Your task to perform on an android device: Go to network settings Image 0: 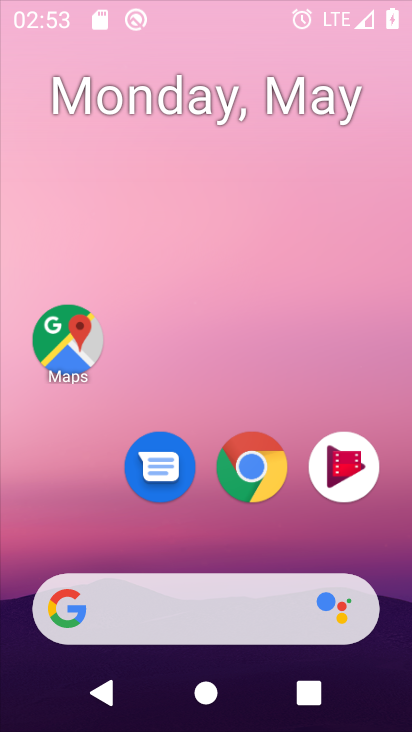
Step 0: click (282, 175)
Your task to perform on an android device: Go to network settings Image 1: 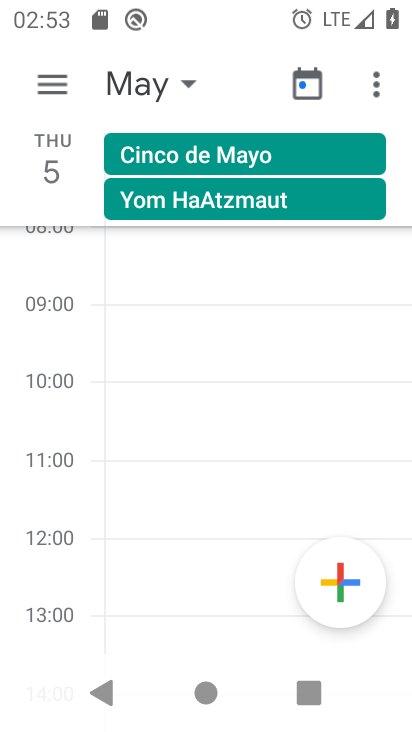
Step 1: press home button
Your task to perform on an android device: Go to network settings Image 2: 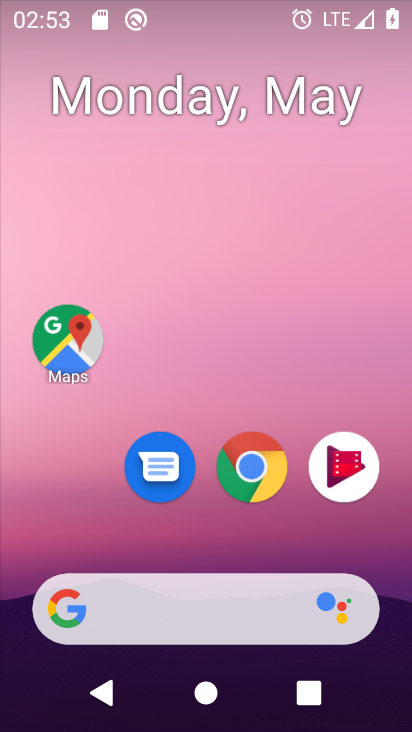
Step 2: drag from (177, 375) to (195, 197)
Your task to perform on an android device: Go to network settings Image 3: 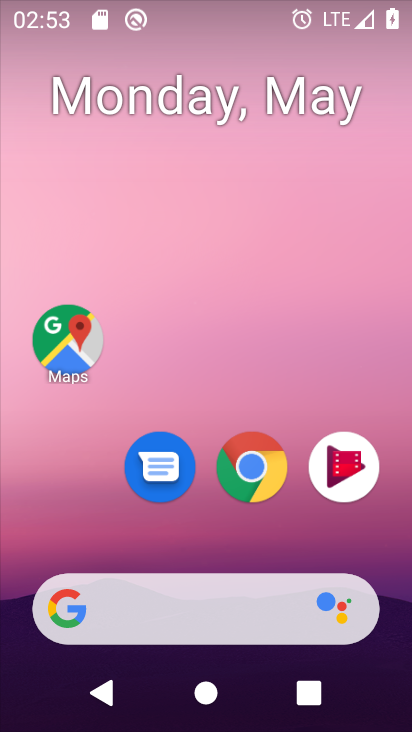
Step 3: drag from (178, 575) to (220, 172)
Your task to perform on an android device: Go to network settings Image 4: 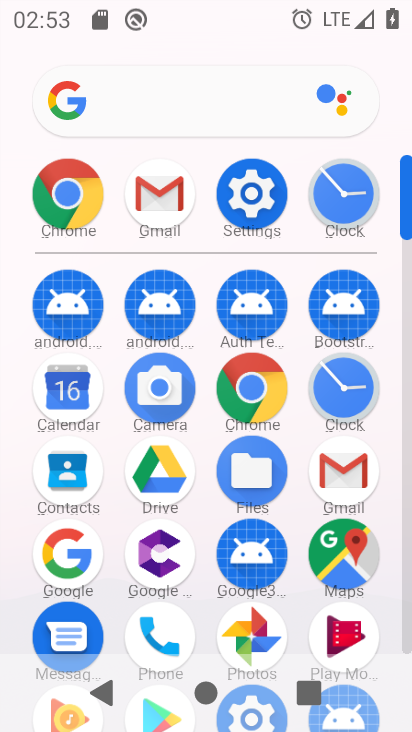
Step 4: click (74, 187)
Your task to perform on an android device: Go to network settings Image 5: 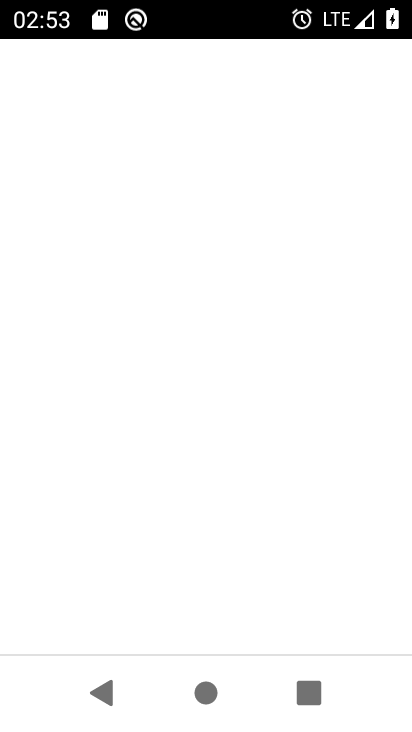
Step 5: press back button
Your task to perform on an android device: Go to network settings Image 6: 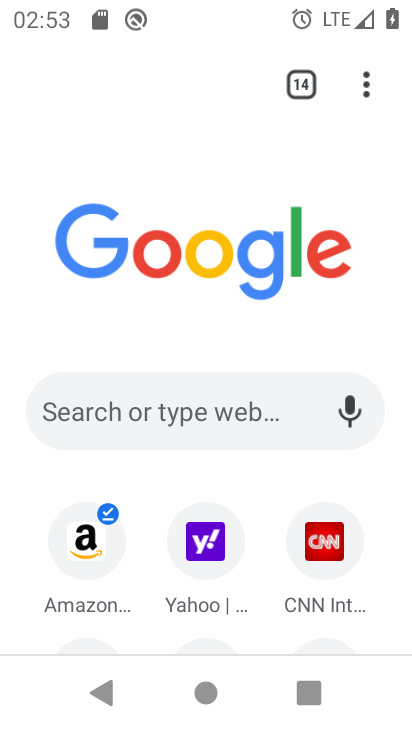
Step 6: press home button
Your task to perform on an android device: Go to network settings Image 7: 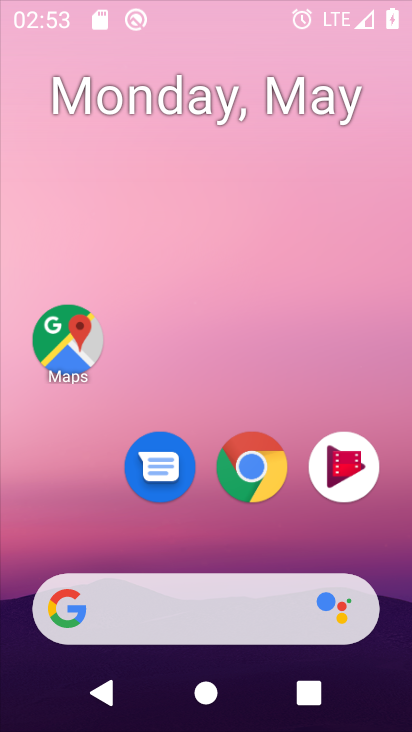
Step 7: drag from (167, 592) to (214, 237)
Your task to perform on an android device: Go to network settings Image 8: 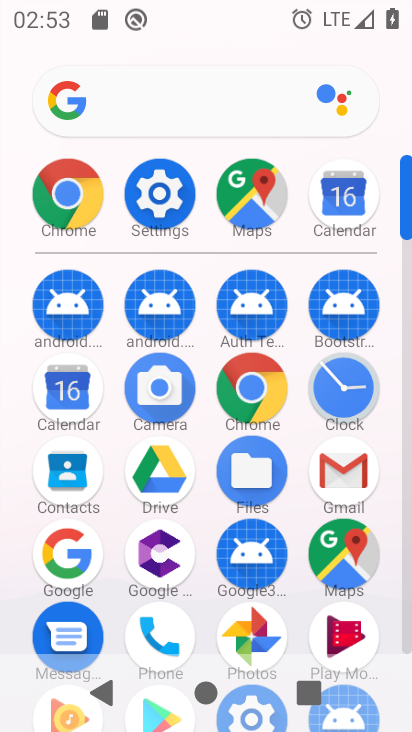
Step 8: click (162, 183)
Your task to perform on an android device: Go to network settings Image 9: 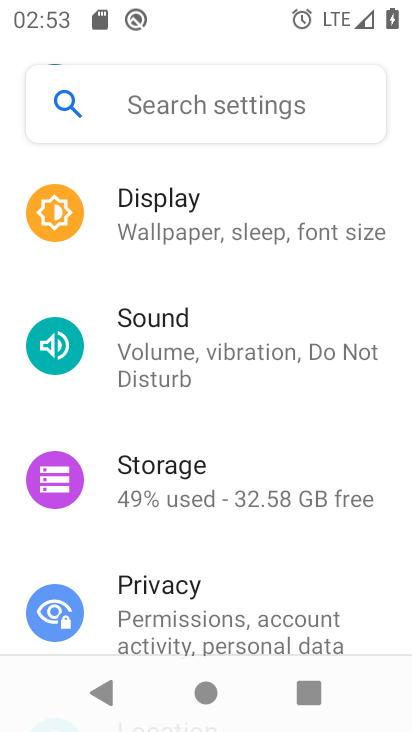
Step 9: drag from (214, 209) to (190, 593)
Your task to perform on an android device: Go to network settings Image 10: 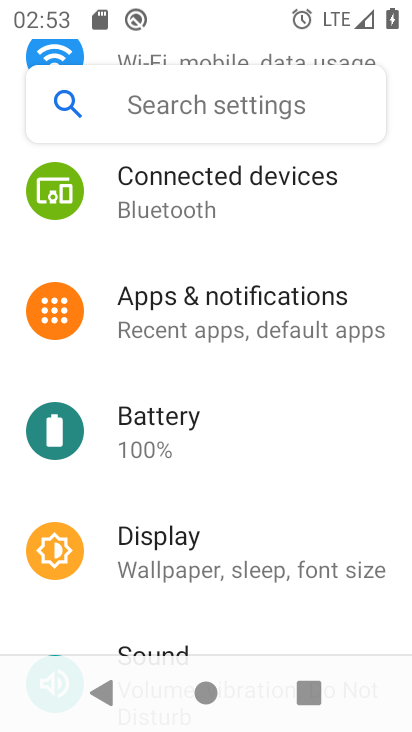
Step 10: drag from (220, 200) to (169, 574)
Your task to perform on an android device: Go to network settings Image 11: 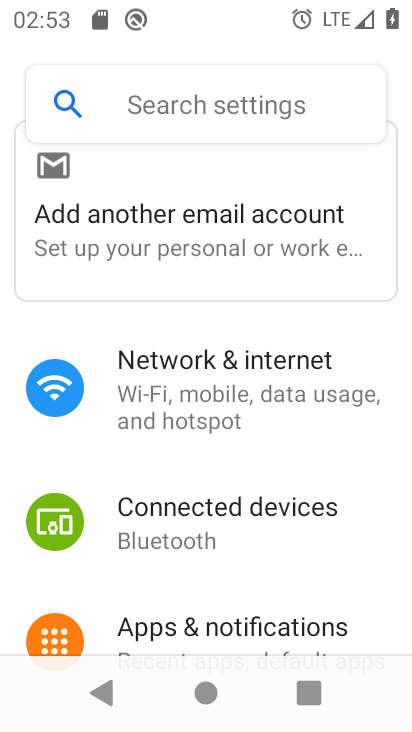
Step 11: click (162, 355)
Your task to perform on an android device: Go to network settings Image 12: 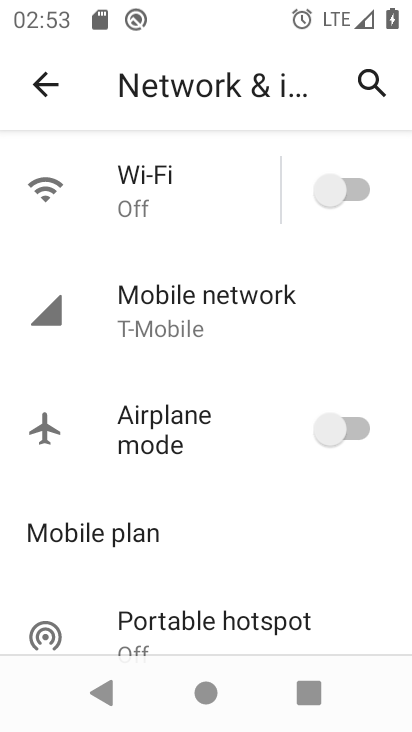
Step 12: task complete